Your task to perform on an android device: Go to ESPN.com Image 0: 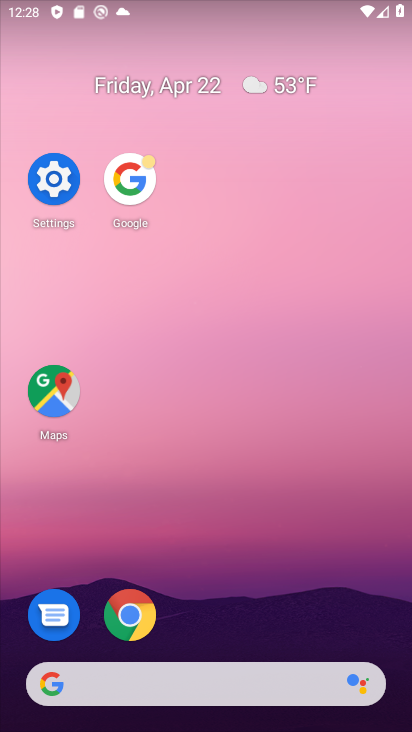
Step 0: click (118, 607)
Your task to perform on an android device: Go to ESPN.com Image 1: 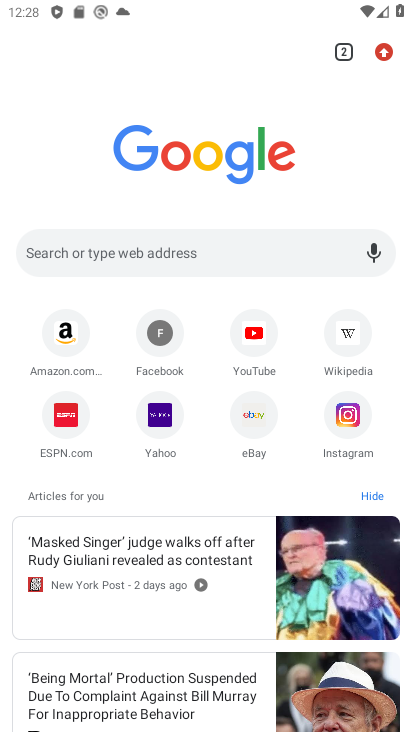
Step 1: click (59, 407)
Your task to perform on an android device: Go to ESPN.com Image 2: 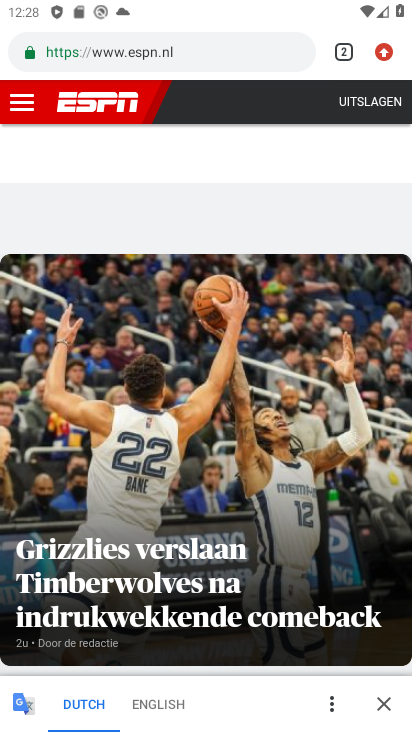
Step 2: task complete